Your task to perform on an android device: Go to display settings Image 0: 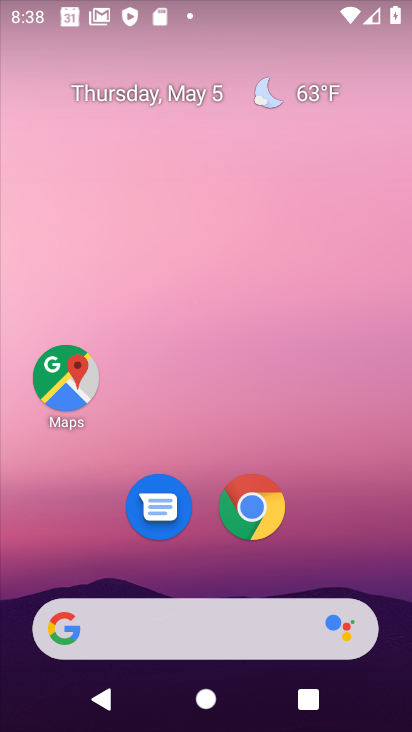
Step 0: drag from (316, 467) to (267, 20)
Your task to perform on an android device: Go to display settings Image 1: 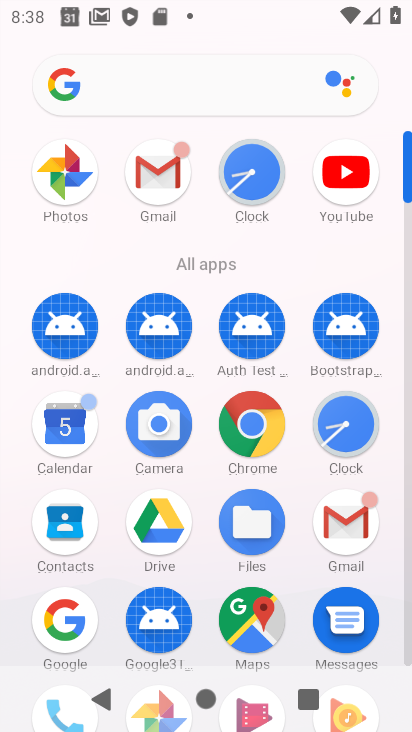
Step 1: drag from (180, 263) to (219, 3)
Your task to perform on an android device: Go to display settings Image 2: 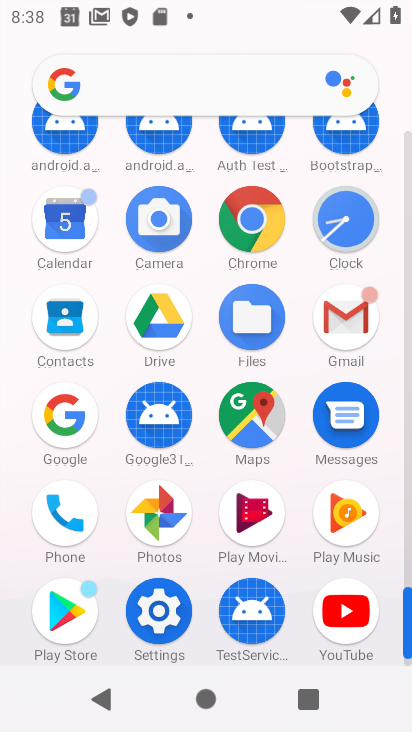
Step 2: click (170, 591)
Your task to perform on an android device: Go to display settings Image 3: 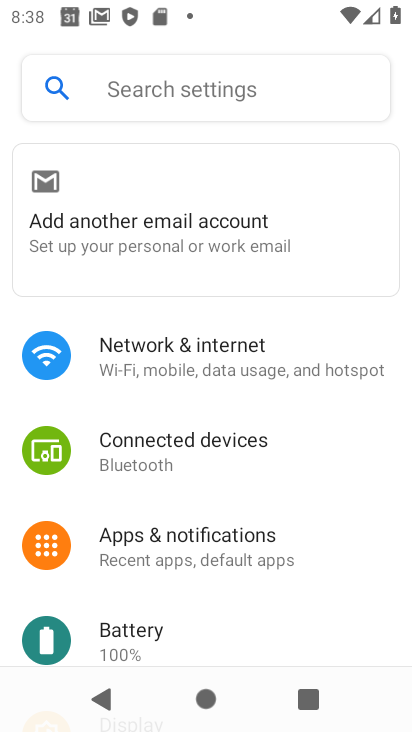
Step 3: drag from (159, 625) to (180, 217)
Your task to perform on an android device: Go to display settings Image 4: 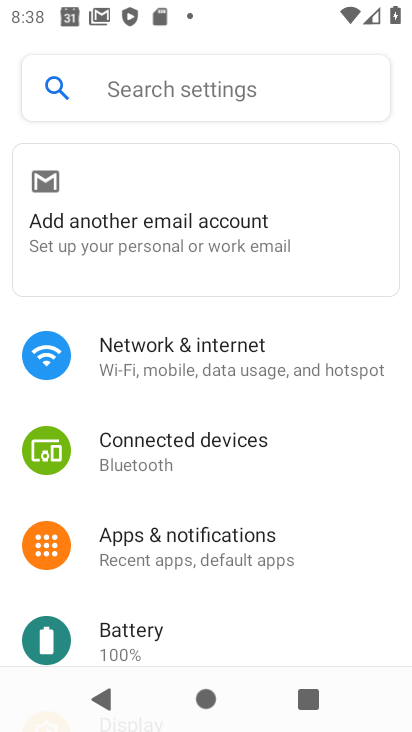
Step 4: drag from (166, 583) to (185, 252)
Your task to perform on an android device: Go to display settings Image 5: 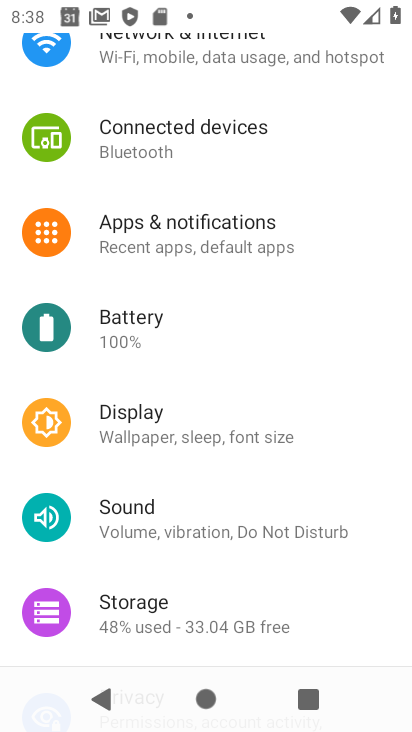
Step 5: click (155, 412)
Your task to perform on an android device: Go to display settings Image 6: 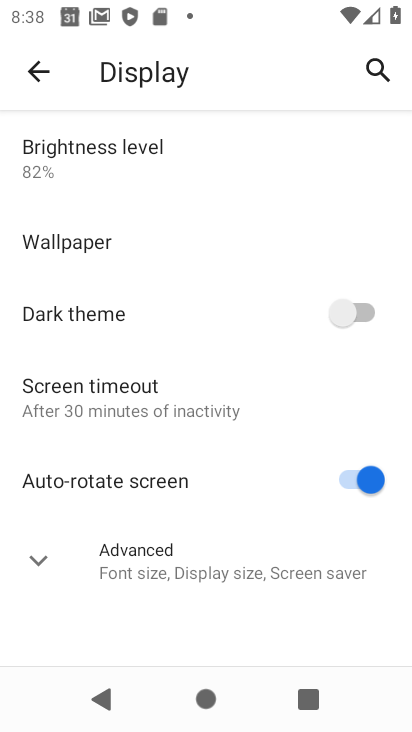
Step 6: task complete